Your task to perform on an android device: toggle airplane mode Image 0: 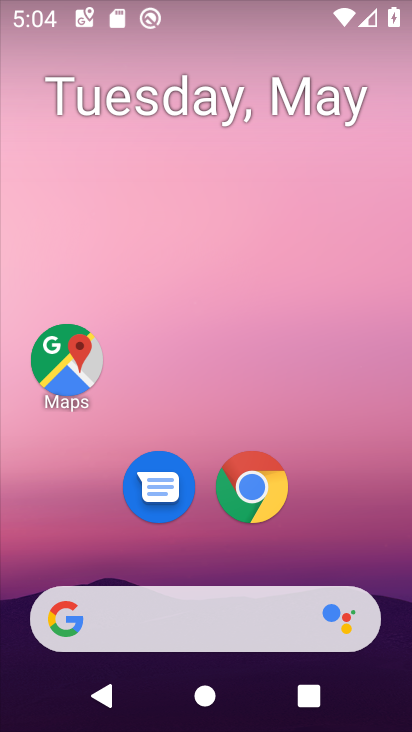
Step 0: drag from (298, 541) to (406, 687)
Your task to perform on an android device: toggle airplane mode Image 1: 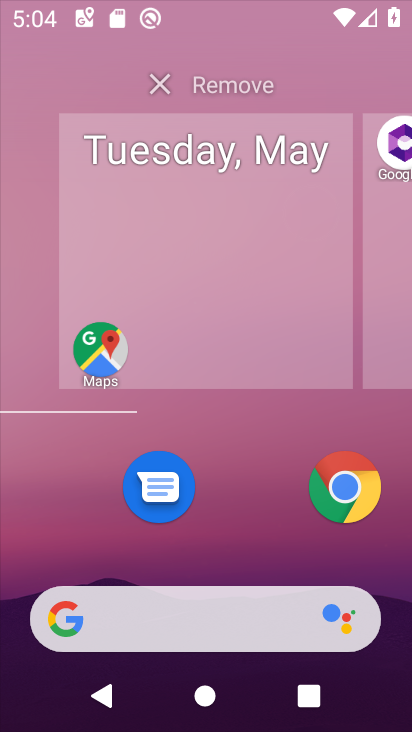
Step 1: click (308, 552)
Your task to perform on an android device: toggle airplane mode Image 2: 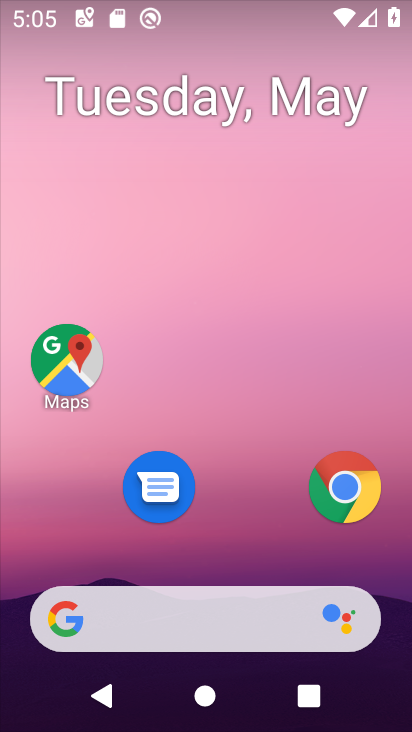
Step 2: drag from (308, 552) to (312, 54)
Your task to perform on an android device: toggle airplane mode Image 3: 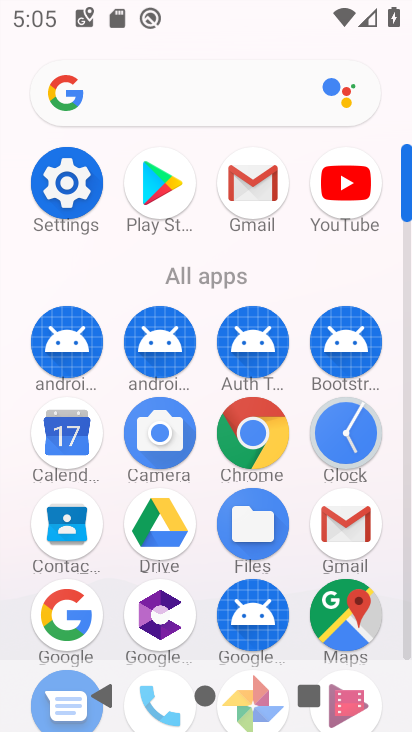
Step 3: click (74, 238)
Your task to perform on an android device: toggle airplane mode Image 4: 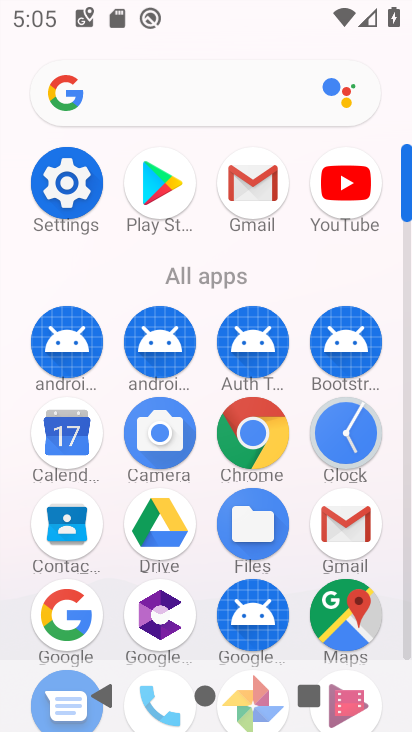
Step 4: click (72, 213)
Your task to perform on an android device: toggle airplane mode Image 5: 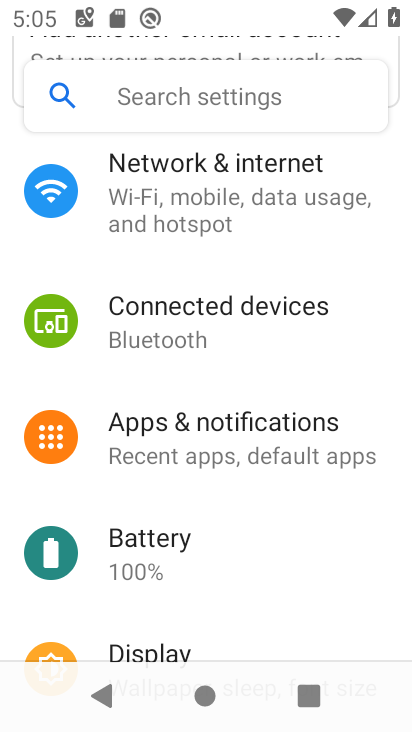
Step 5: drag from (266, 161) to (261, 689)
Your task to perform on an android device: toggle airplane mode Image 6: 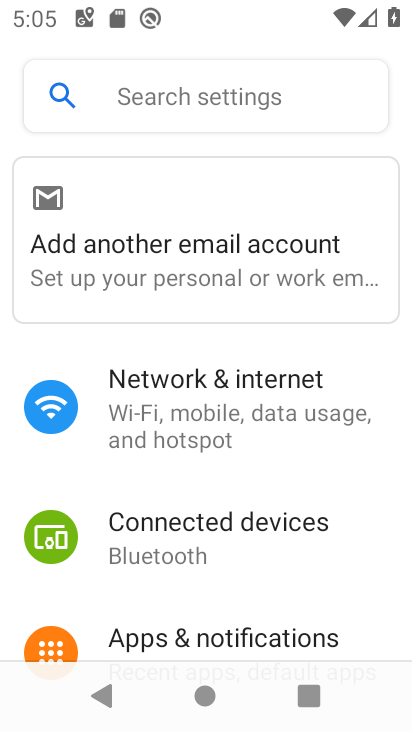
Step 6: click (244, 474)
Your task to perform on an android device: toggle airplane mode Image 7: 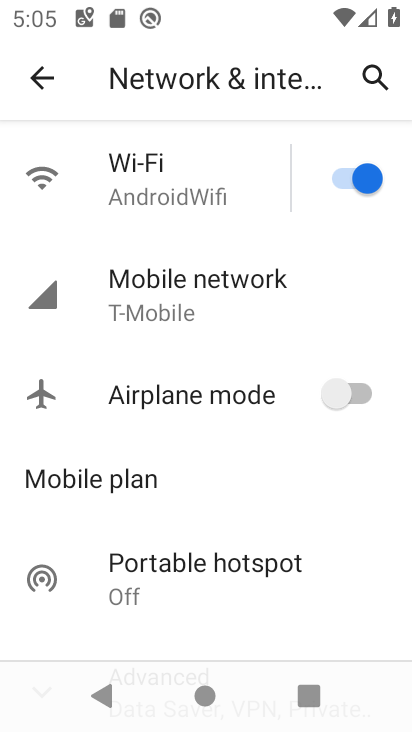
Step 7: click (333, 384)
Your task to perform on an android device: toggle airplane mode Image 8: 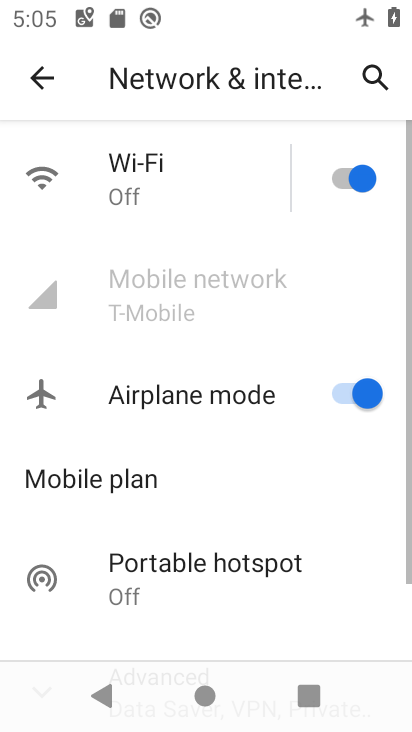
Step 8: task complete